Your task to perform on an android device: Go to Amazon Image 0: 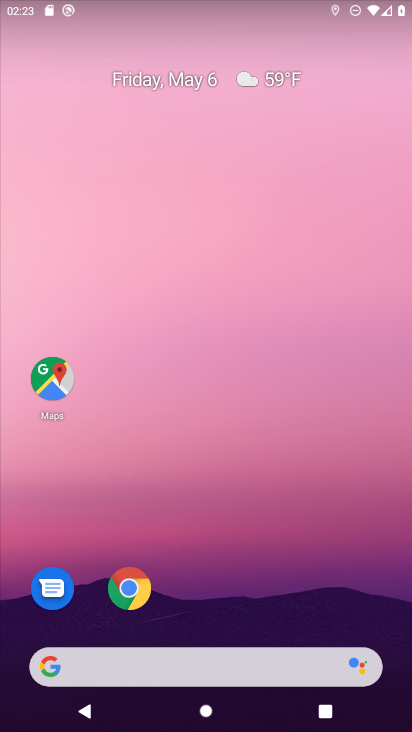
Step 0: click (128, 588)
Your task to perform on an android device: Go to Amazon Image 1: 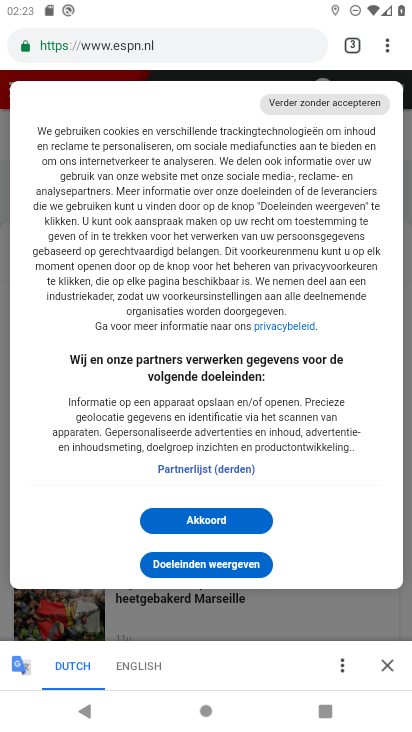
Step 1: click (343, 44)
Your task to perform on an android device: Go to Amazon Image 2: 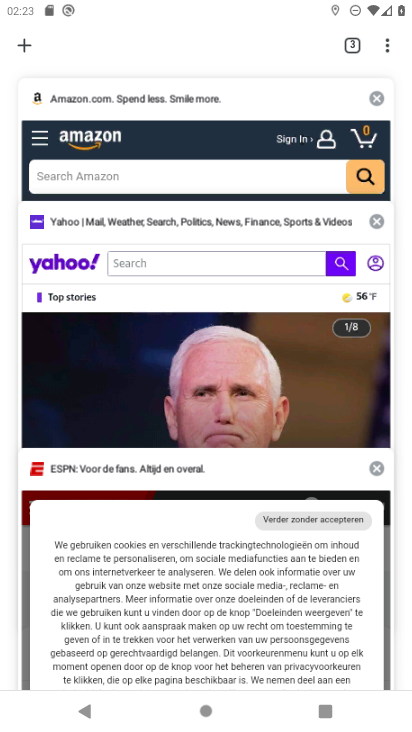
Step 2: click (116, 155)
Your task to perform on an android device: Go to Amazon Image 3: 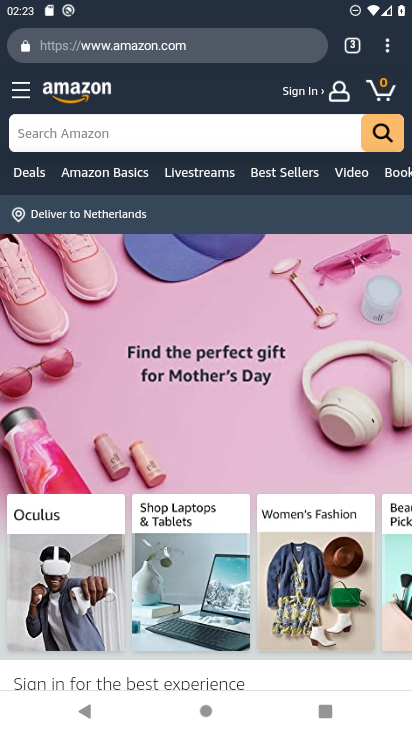
Step 3: task complete